Your task to perform on an android device: Do I have any events this weekend? Image 0: 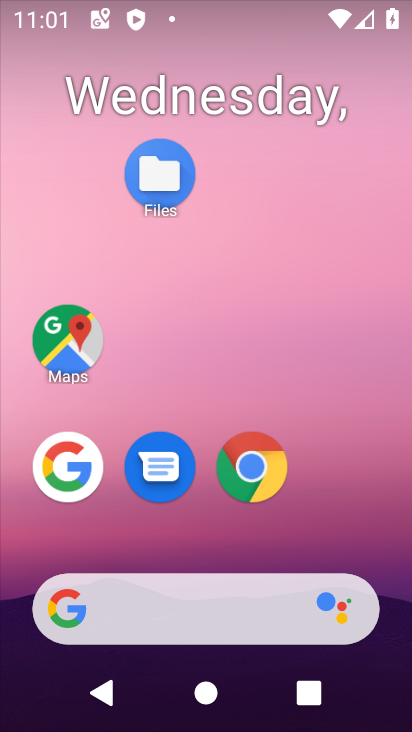
Step 0: drag from (232, 571) to (344, 2)
Your task to perform on an android device: Do I have any events this weekend? Image 1: 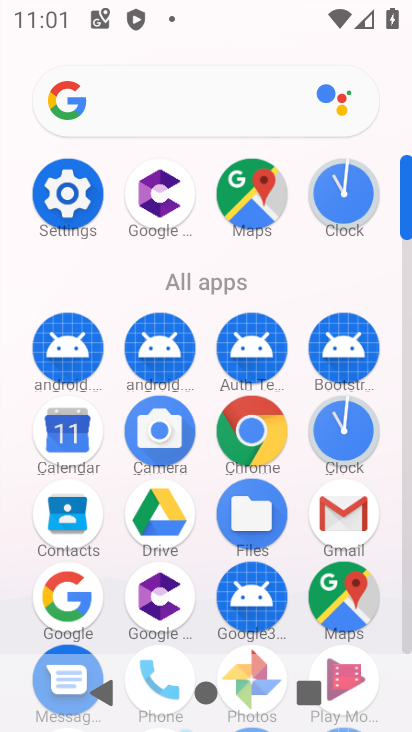
Step 1: click (66, 442)
Your task to perform on an android device: Do I have any events this weekend? Image 2: 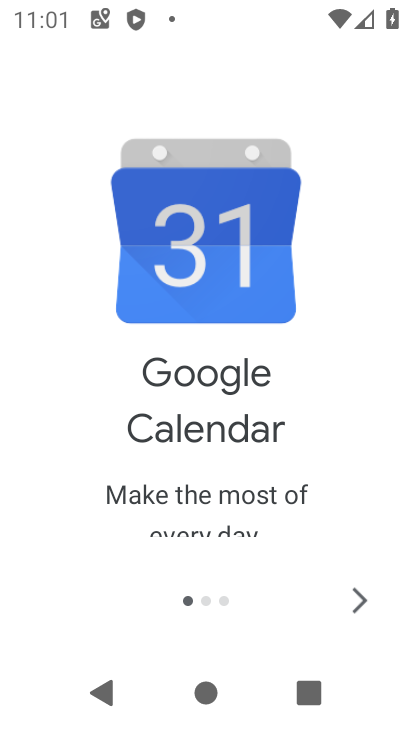
Step 2: click (359, 602)
Your task to perform on an android device: Do I have any events this weekend? Image 3: 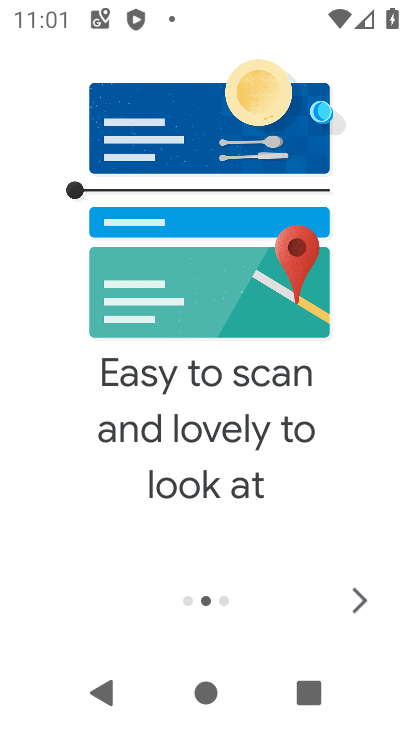
Step 3: click (359, 602)
Your task to perform on an android device: Do I have any events this weekend? Image 4: 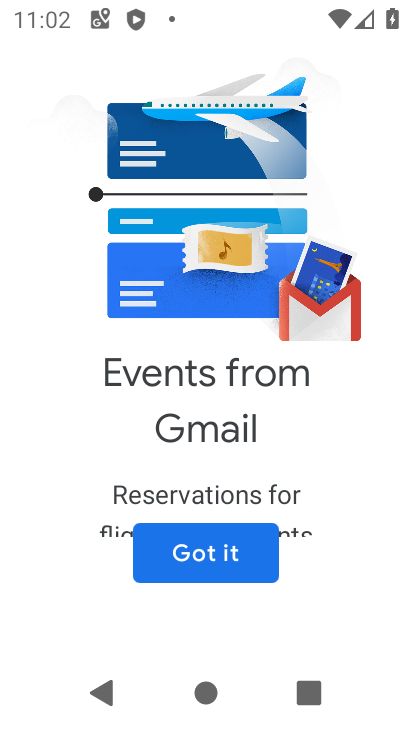
Step 4: click (189, 540)
Your task to perform on an android device: Do I have any events this weekend? Image 5: 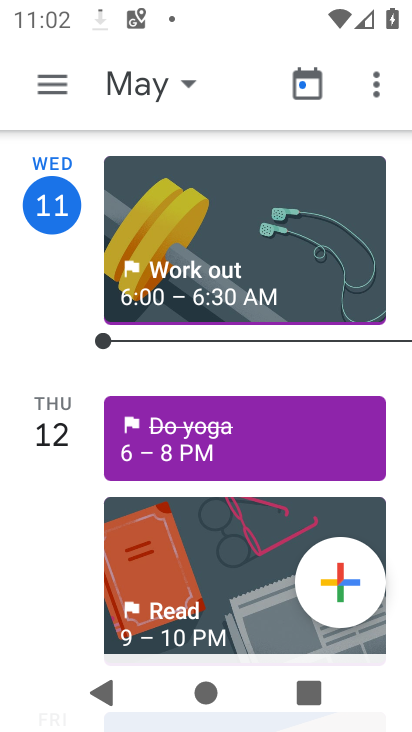
Step 5: click (61, 77)
Your task to perform on an android device: Do I have any events this weekend? Image 6: 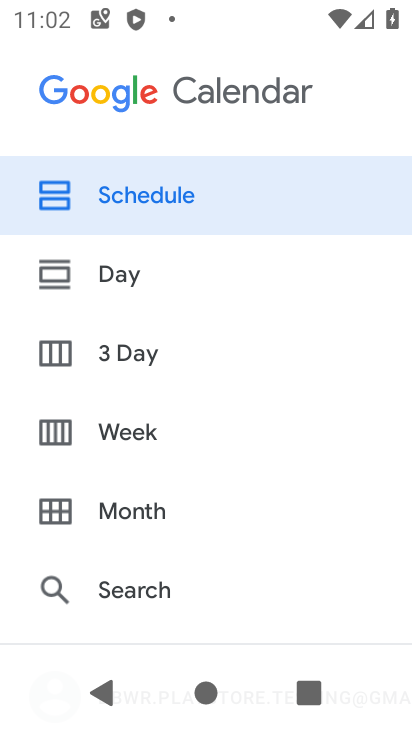
Step 6: click (110, 433)
Your task to perform on an android device: Do I have any events this weekend? Image 7: 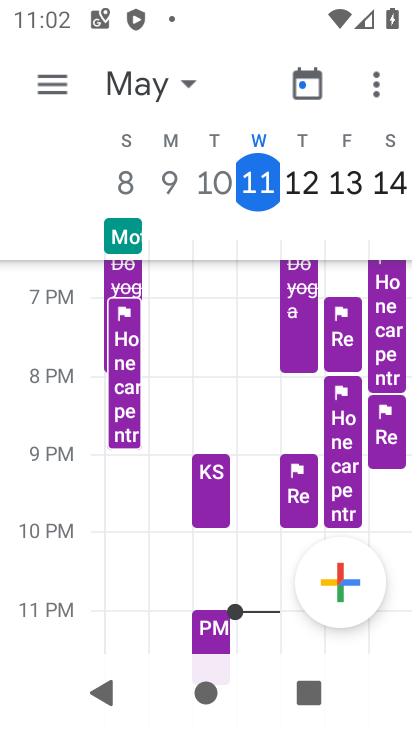
Step 7: task complete